Your task to perform on an android device: turn notification dots on Image 0: 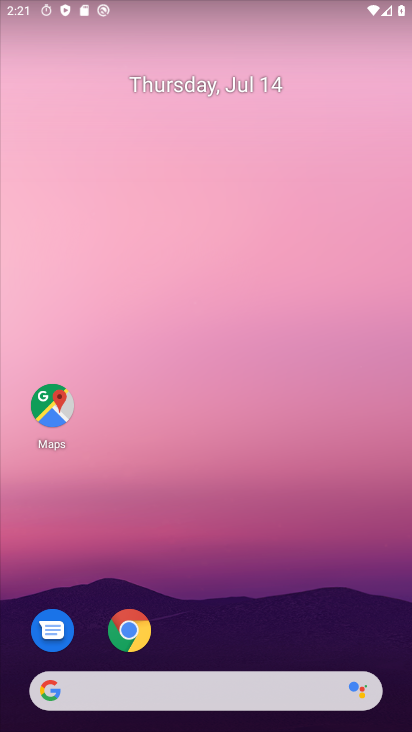
Step 0: drag from (314, 605) to (303, 29)
Your task to perform on an android device: turn notification dots on Image 1: 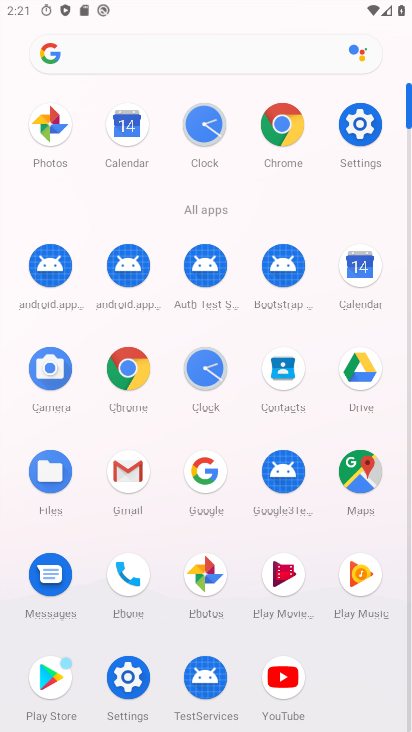
Step 1: click (352, 121)
Your task to perform on an android device: turn notification dots on Image 2: 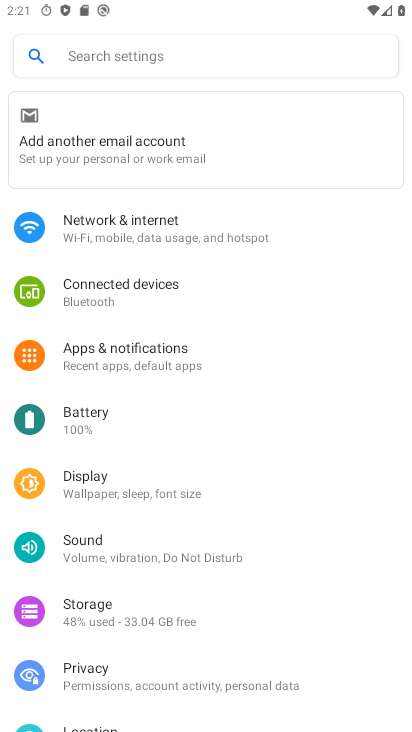
Step 2: click (154, 346)
Your task to perform on an android device: turn notification dots on Image 3: 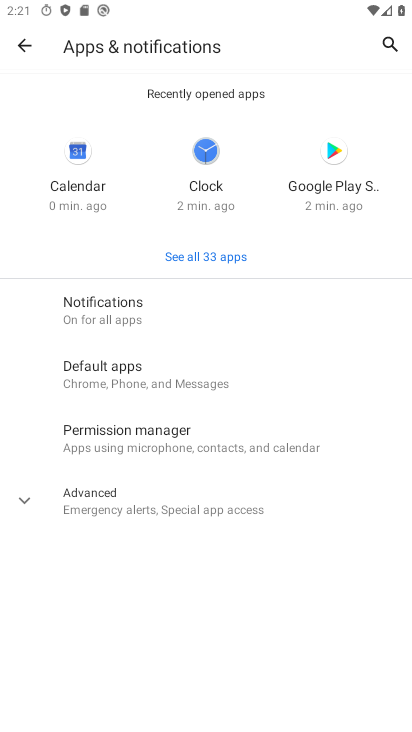
Step 3: click (166, 303)
Your task to perform on an android device: turn notification dots on Image 4: 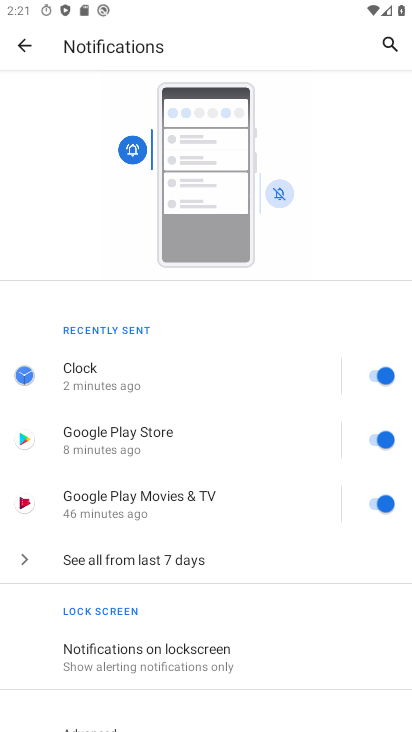
Step 4: drag from (251, 617) to (212, 265)
Your task to perform on an android device: turn notification dots on Image 5: 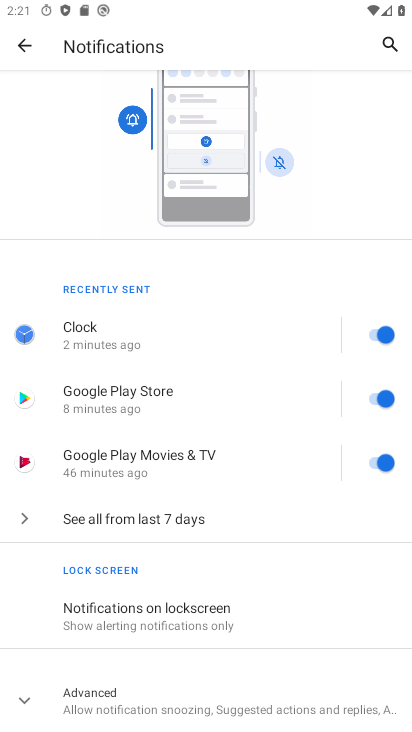
Step 5: click (283, 675)
Your task to perform on an android device: turn notification dots on Image 6: 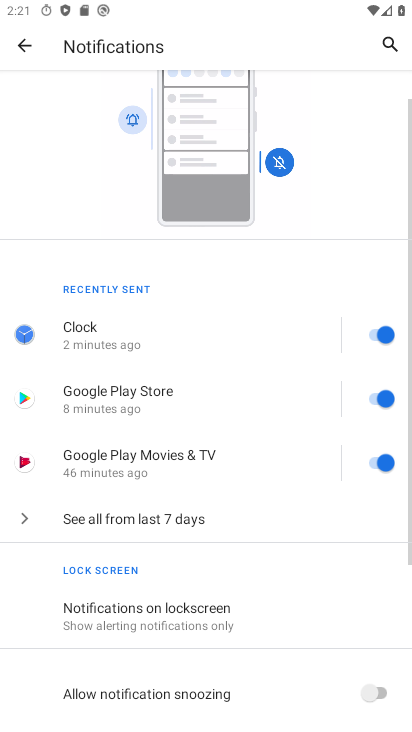
Step 6: task complete